Your task to perform on an android device: toggle notification dots Image 0: 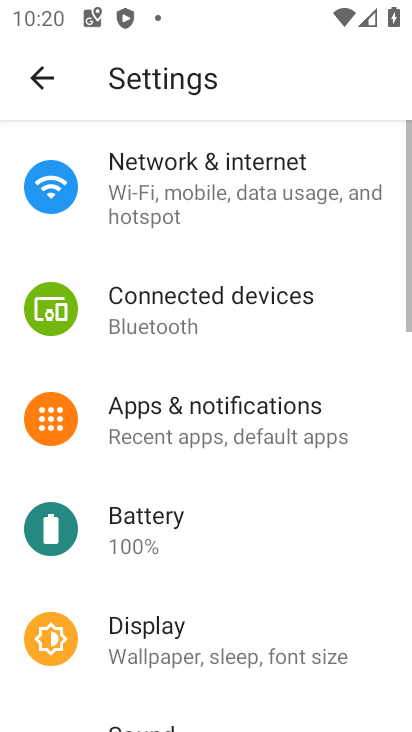
Step 0: press back button
Your task to perform on an android device: toggle notification dots Image 1: 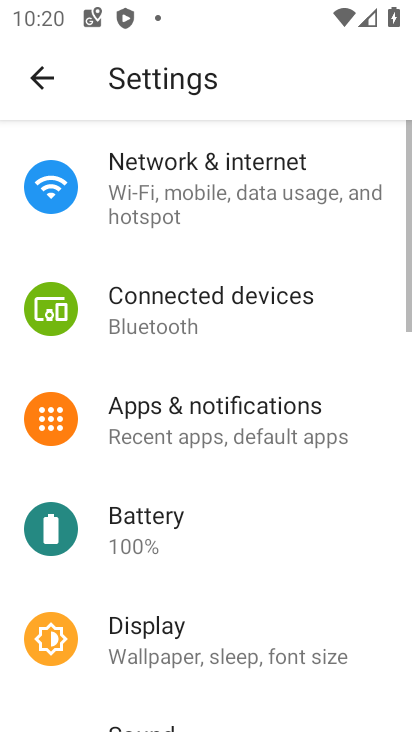
Step 1: press back button
Your task to perform on an android device: toggle notification dots Image 2: 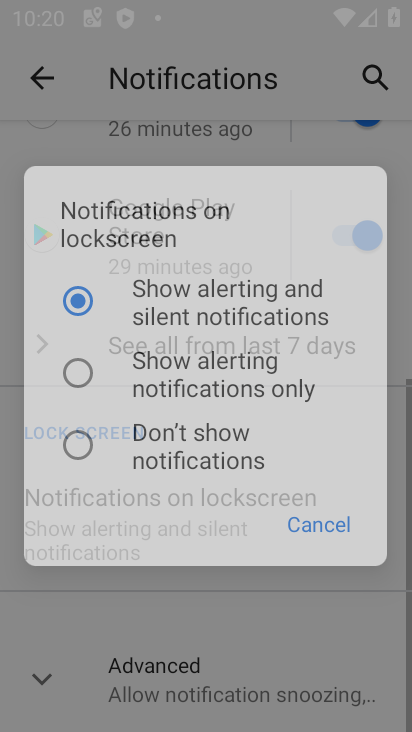
Step 2: press back button
Your task to perform on an android device: toggle notification dots Image 3: 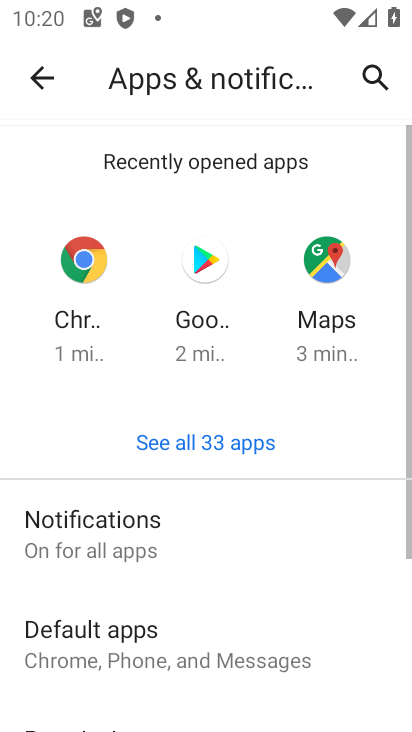
Step 3: press home button
Your task to perform on an android device: toggle notification dots Image 4: 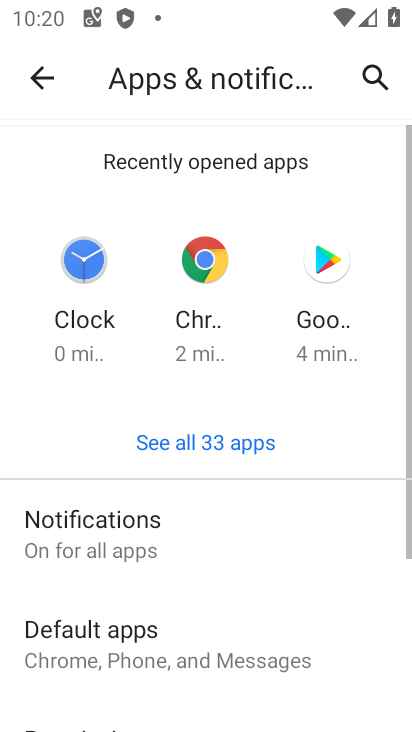
Step 4: press home button
Your task to perform on an android device: toggle notification dots Image 5: 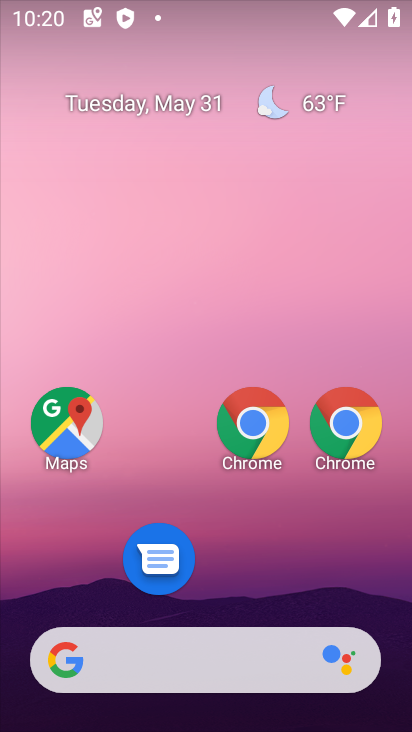
Step 5: drag from (248, 622) to (89, 29)
Your task to perform on an android device: toggle notification dots Image 6: 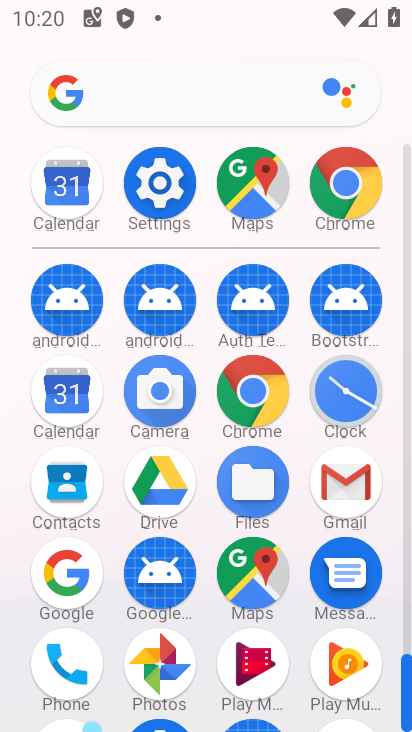
Step 6: click (160, 186)
Your task to perform on an android device: toggle notification dots Image 7: 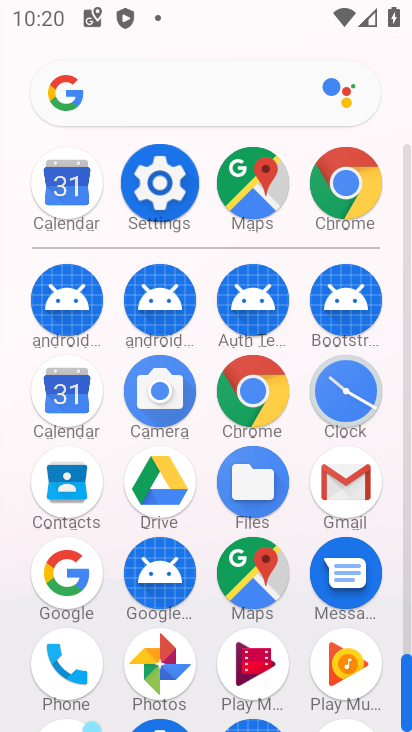
Step 7: click (159, 186)
Your task to perform on an android device: toggle notification dots Image 8: 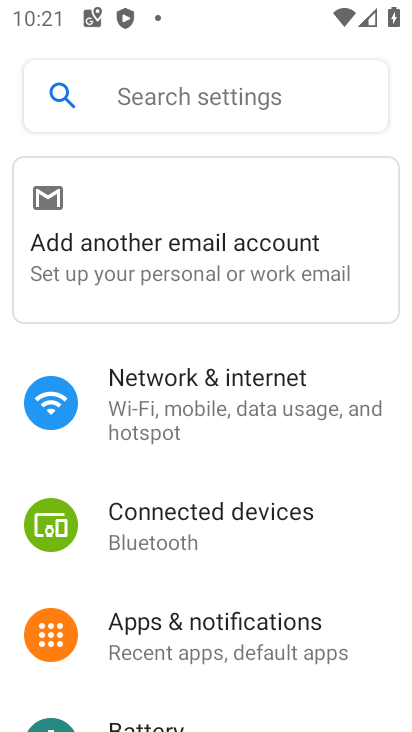
Step 8: click (228, 637)
Your task to perform on an android device: toggle notification dots Image 9: 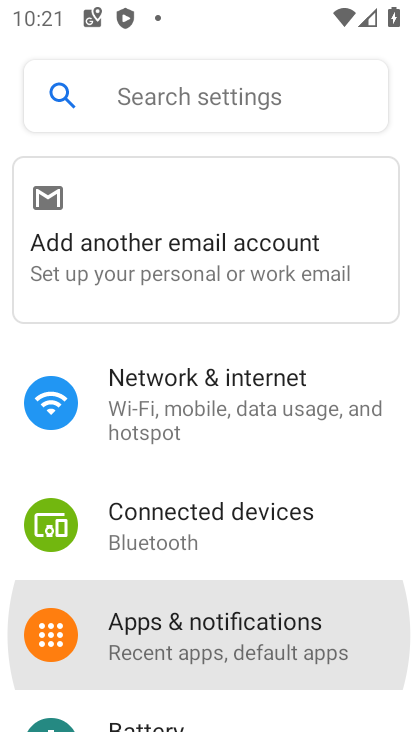
Step 9: click (228, 637)
Your task to perform on an android device: toggle notification dots Image 10: 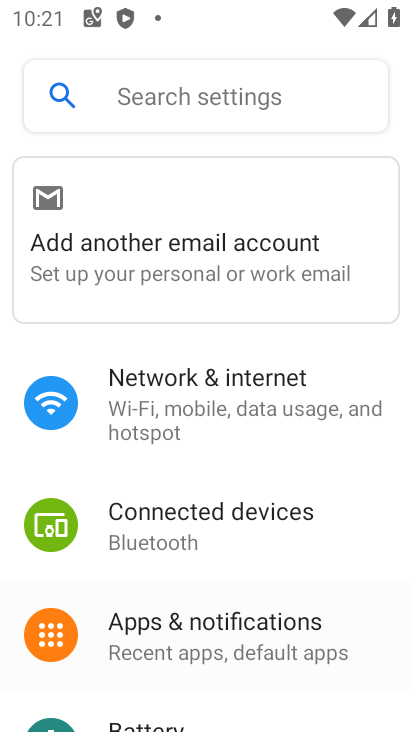
Step 10: click (229, 633)
Your task to perform on an android device: toggle notification dots Image 11: 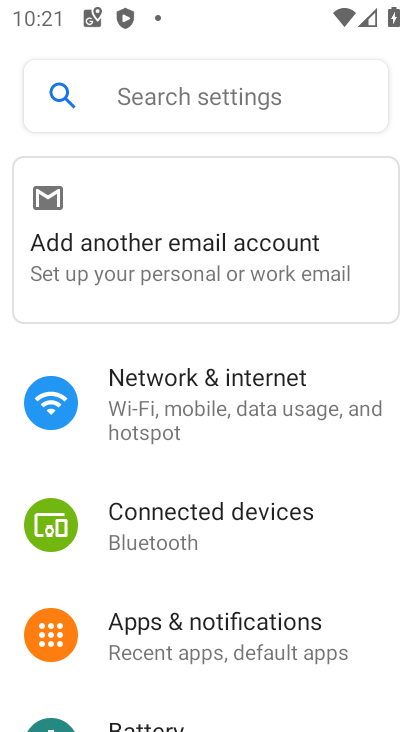
Step 11: click (229, 633)
Your task to perform on an android device: toggle notification dots Image 12: 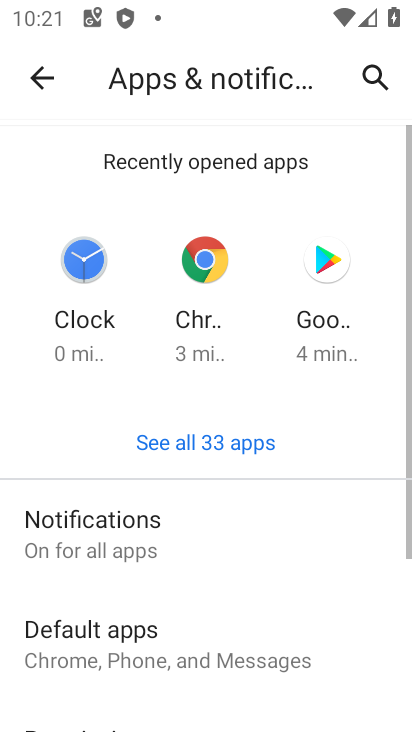
Step 12: click (97, 529)
Your task to perform on an android device: toggle notification dots Image 13: 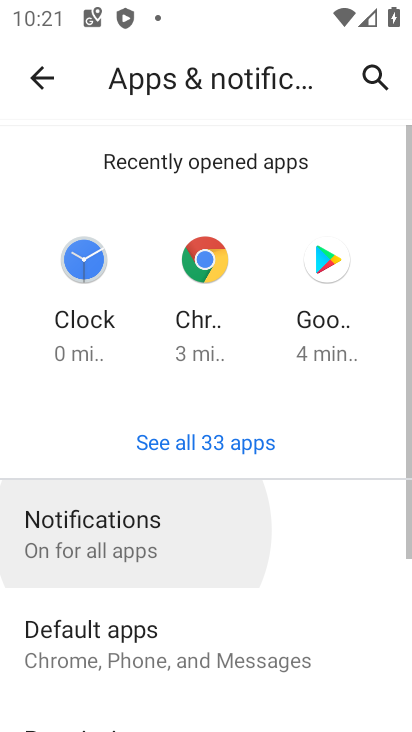
Step 13: click (103, 519)
Your task to perform on an android device: toggle notification dots Image 14: 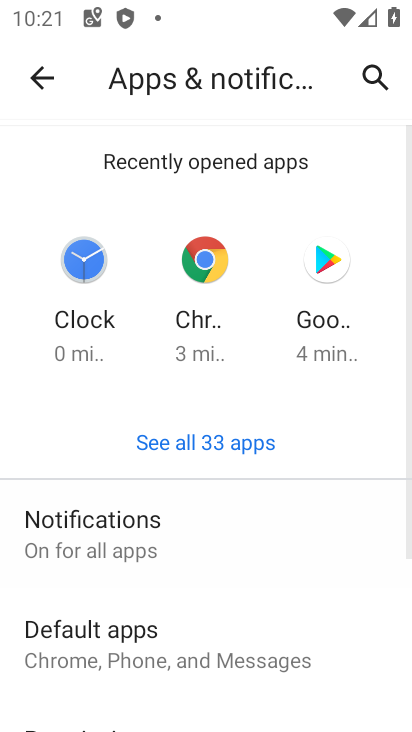
Step 14: click (106, 518)
Your task to perform on an android device: toggle notification dots Image 15: 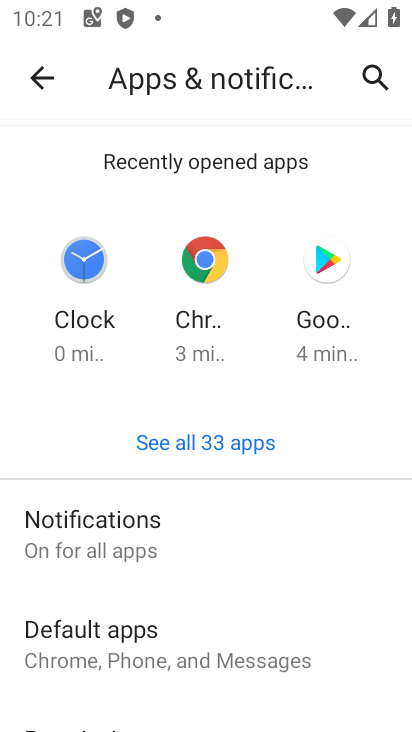
Step 15: click (106, 518)
Your task to perform on an android device: toggle notification dots Image 16: 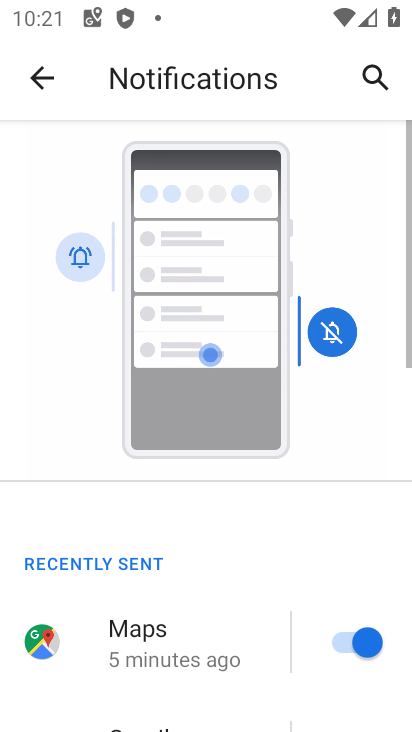
Step 16: drag from (252, 544) to (252, 93)
Your task to perform on an android device: toggle notification dots Image 17: 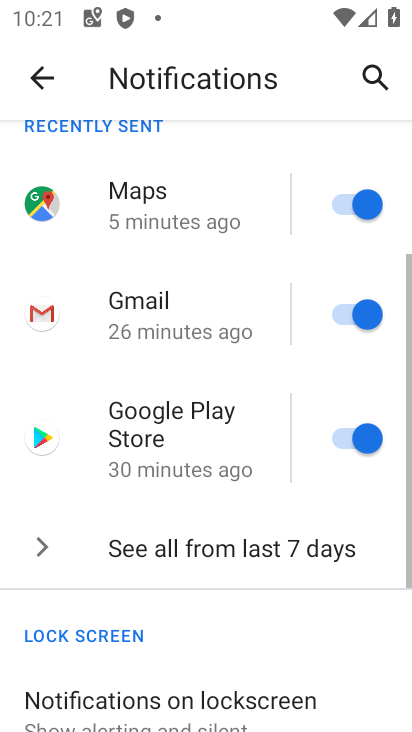
Step 17: drag from (262, 491) to (235, 100)
Your task to perform on an android device: toggle notification dots Image 18: 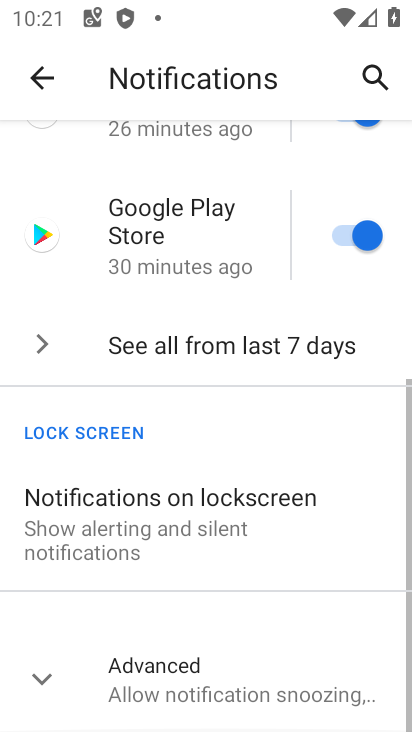
Step 18: drag from (195, 545) to (195, 209)
Your task to perform on an android device: toggle notification dots Image 19: 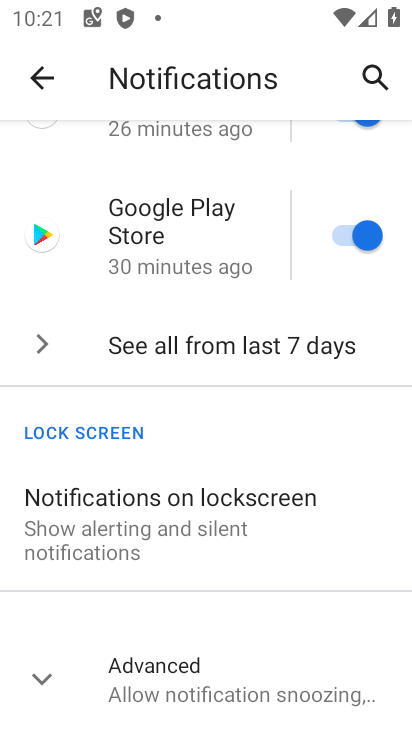
Step 19: click (167, 693)
Your task to perform on an android device: toggle notification dots Image 20: 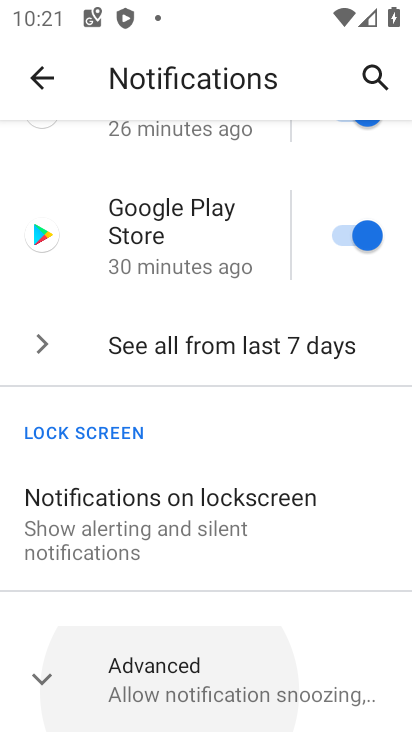
Step 20: click (166, 691)
Your task to perform on an android device: toggle notification dots Image 21: 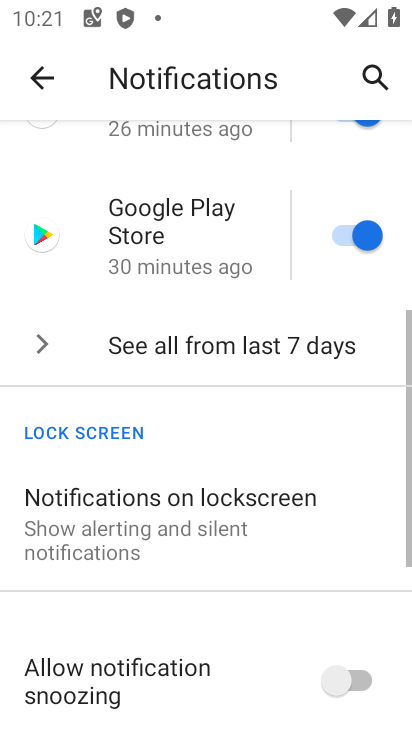
Step 21: drag from (185, 349) to (169, 164)
Your task to perform on an android device: toggle notification dots Image 22: 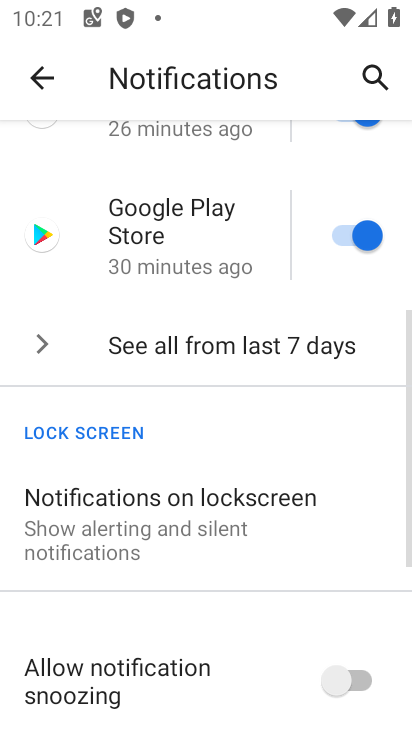
Step 22: drag from (258, 285) to (266, 181)
Your task to perform on an android device: toggle notification dots Image 23: 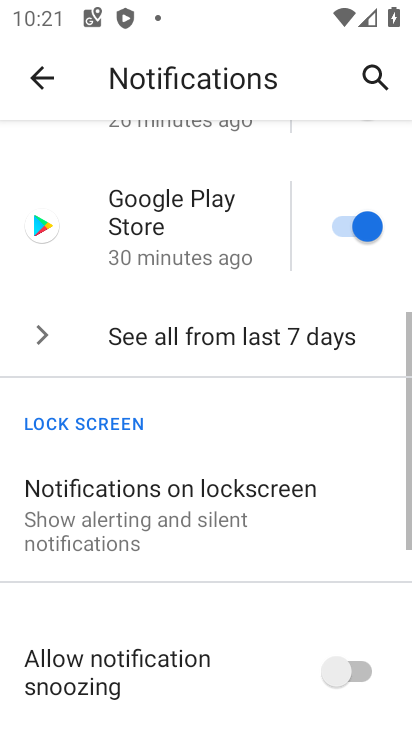
Step 23: drag from (275, 372) to (293, 214)
Your task to perform on an android device: toggle notification dots Image 24: 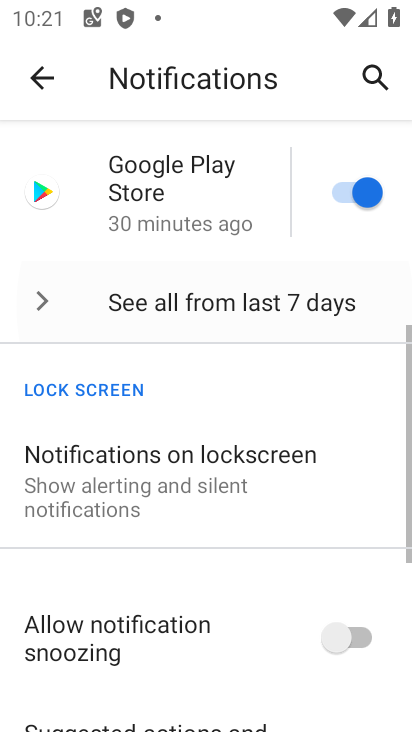
Step 24: drag from (229, 520) to (256, 244)
Your task to perform on an android device: toggle notification dots Image 25: 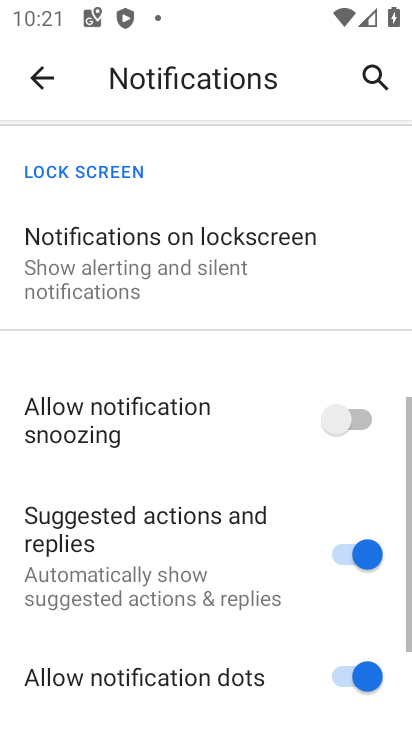
Step 25: drag from (223, 620) to (241, 271)
Your task to perform on an android device: toggle notification dots Image 26: 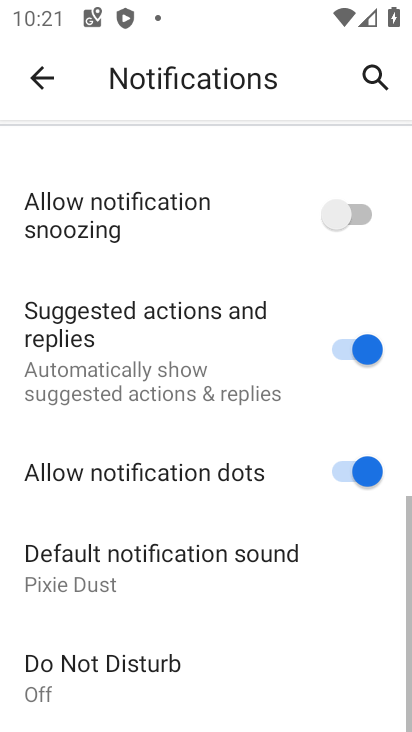
Step 26: drag from (229, 580) to (262, 291)
Your task to perform on an android device: toggle notification dots Image 27: 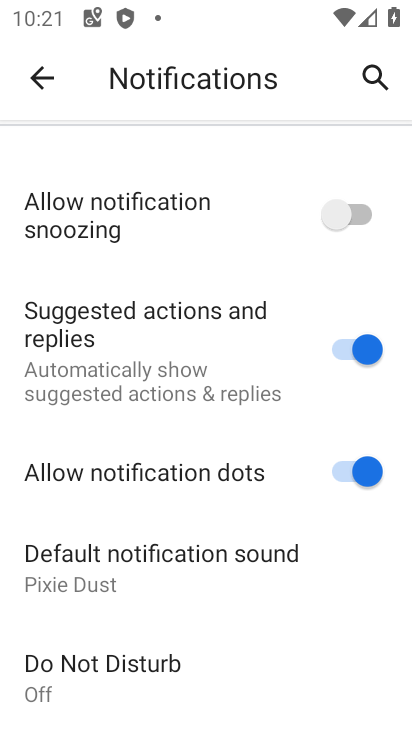
Step 27: click (356, 475)
Your task to perform on an android device: toggle notification dots Image 28: 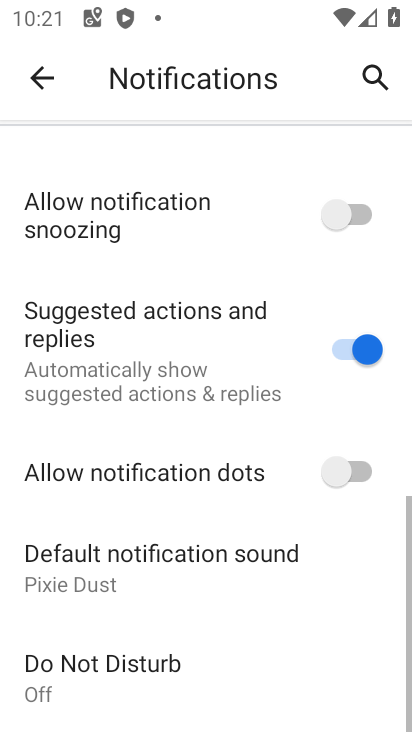
Step 28: task complete